Your task to perform on an android device: Play the last video I watched on Youtube Image 0: 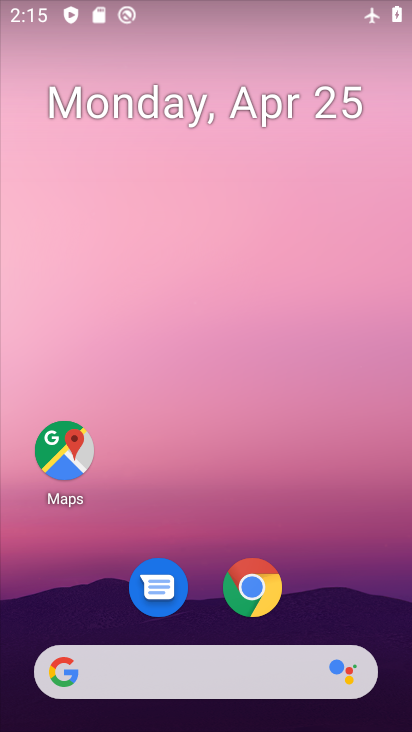
Step 0: drag from (342, 581) to (265, 125)
Your task to perform on an android device: Play the last video I watched on Youtube Image 1: 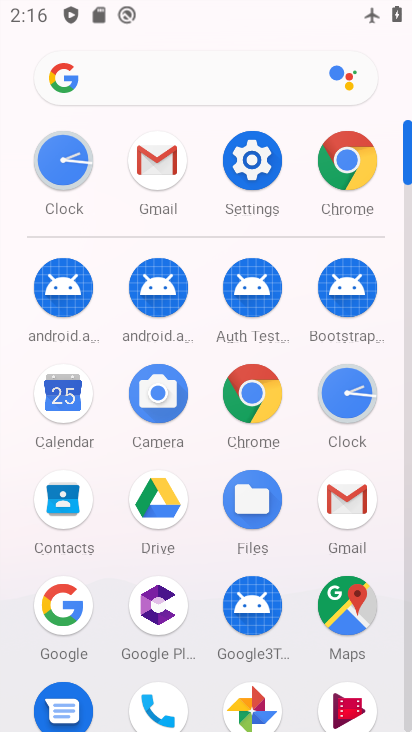
Step 1: drag from (293, 562) to (307, 166)
Your task to perform on an android device: Play the last video I watched on Youtube Image 2: 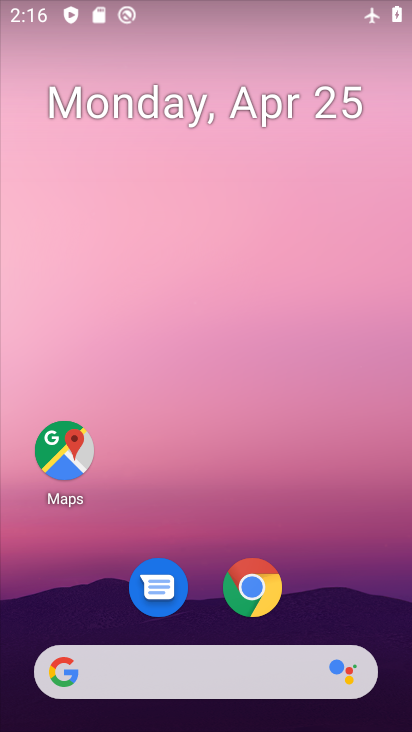
Step 2: drag from (328, 572) to (299, 113)
Your task to perform on an android device: Play the last video I watched on Youtube Image 3: 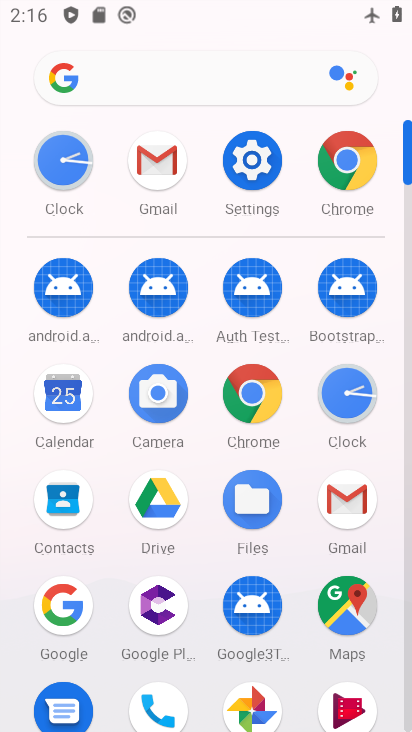
Step 3: drag from (289, 554) to (312, 120)
Your task to perform on an android device: Play the last video I watched on Youtube Image 4: 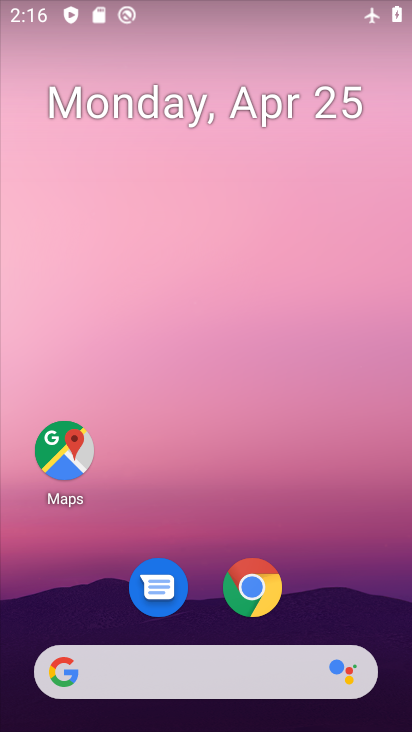
Step 4: drag from (349, 573) to (269, 69)
Your task to perform on an android device: Play the last video I watched on Youtube Image 5: 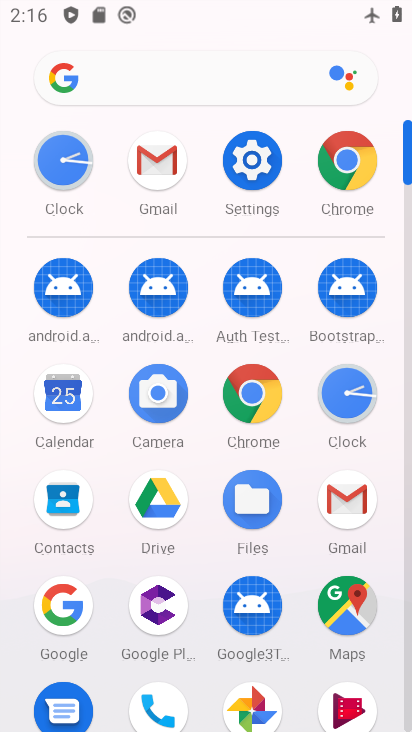
Step 5: drag from (296, 547) to (323, 92)
Your task to perform on an android device: Play the last video I watched on Youtube Image 6: 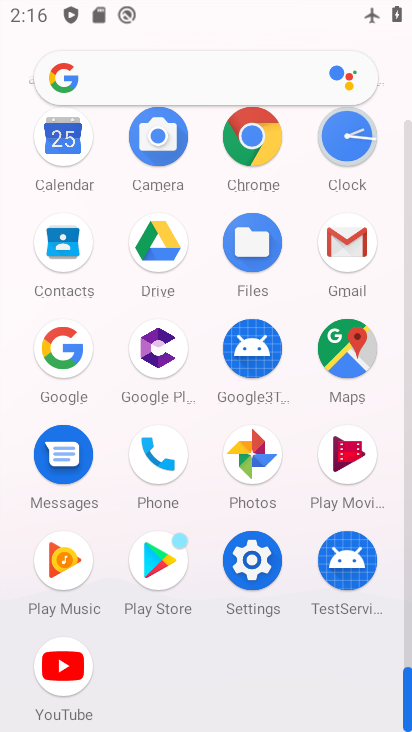
Step 6: click (70, 662)
Your task to perform on an android device: Play the last video I watched on Youtube Image 7: 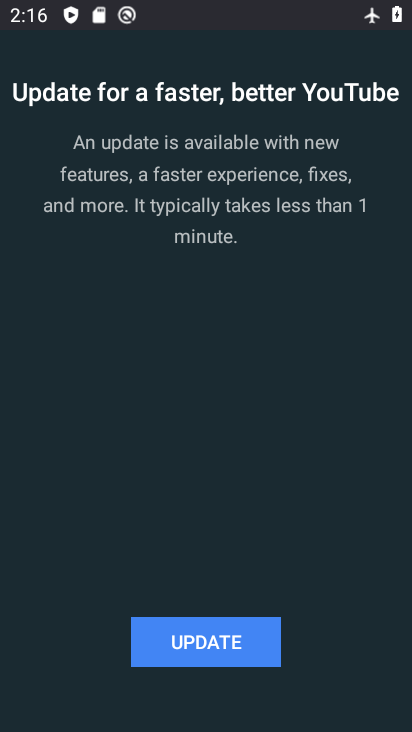
Step 7: click (201, 632)
Your task to perform on an android device: Play the last video I watched on Youtube Image 8: 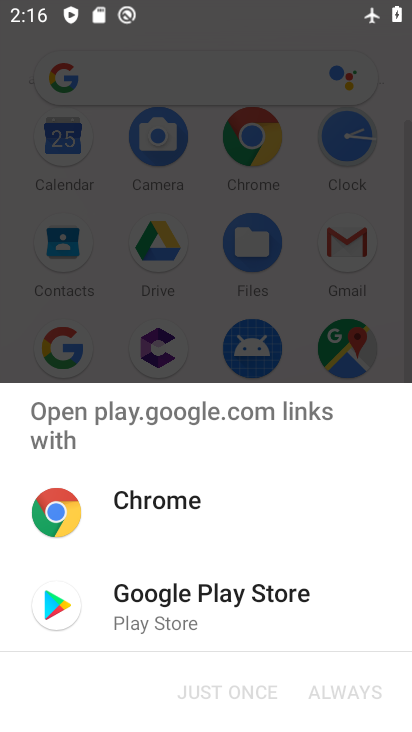
Step 8: task complete